Your task to perform on an android device: search for starred emails in the gmail app Image 0: 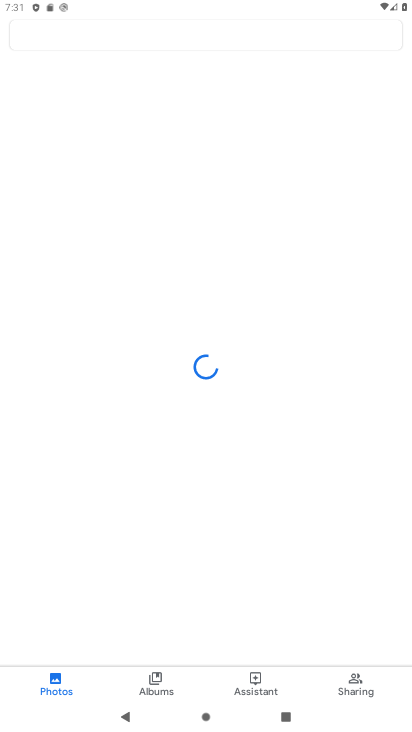
Step 0: press home button
Your task to perform on an android device: search for starred emails in the gmail app Image 1: 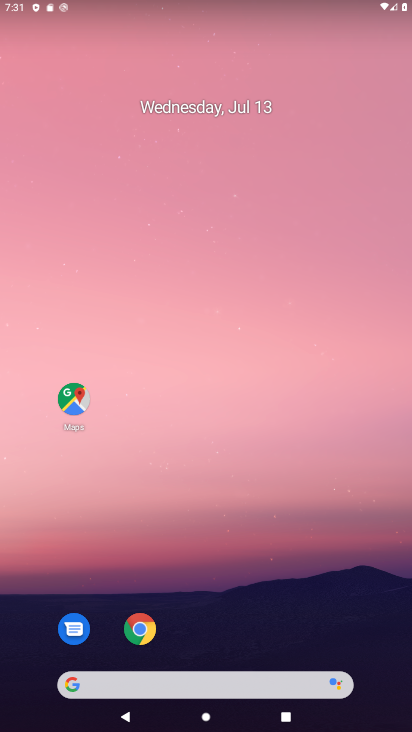
Step 1: drag from (323, 584) to (254, 1)
Your task to perform on an android device: search for starred emails in the gmail app Image 2: 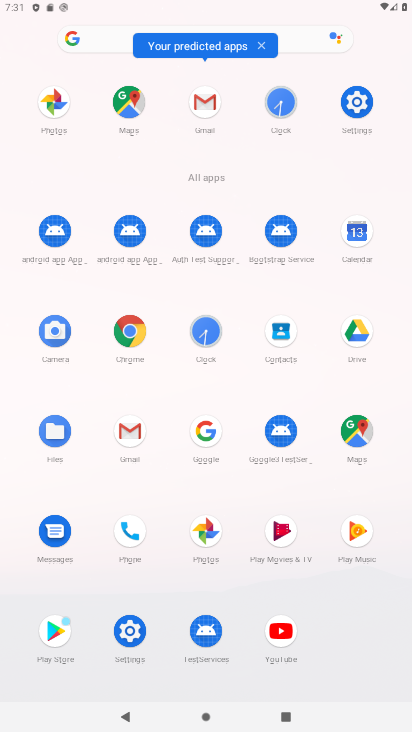
Step 2: click (207, 117)
Your task to perform on an android device: search for starred emails in the gmail app Image 3: 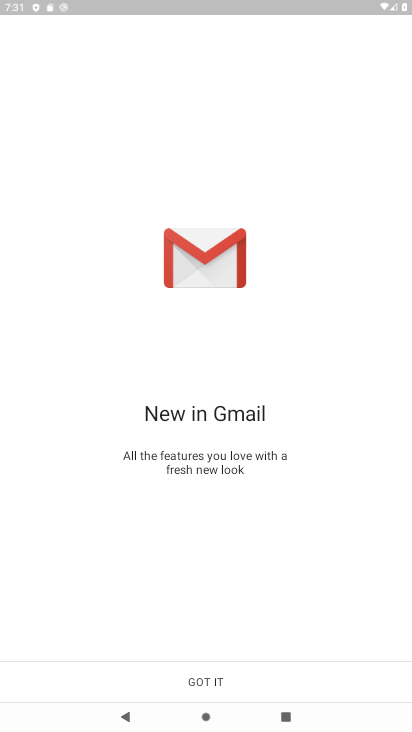
Step 3: click (206, 674)
Your task to perform on an android device: search for starred emails in the gmail app Image 4: 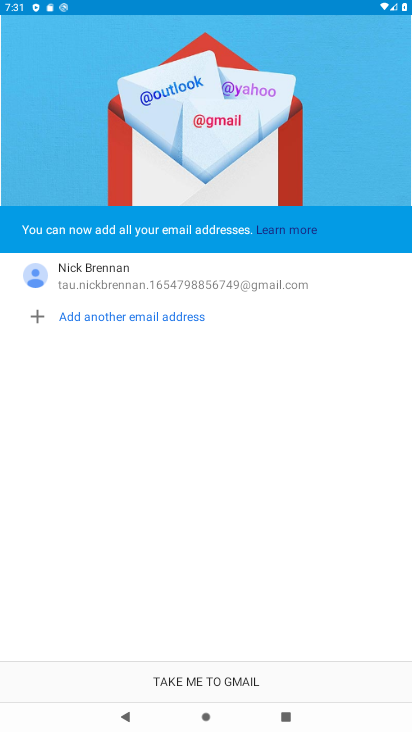
Step 4: click (206, 674)
Your task to perform on an android device: search for starred emails in the gmail app Image 5: 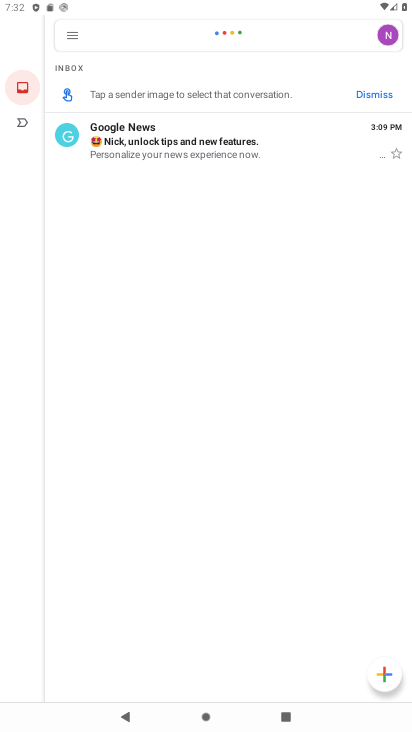
Step 5: click (79, 34)
Your task to perform on an android device: search for starred emails in the gmail app Image 6: 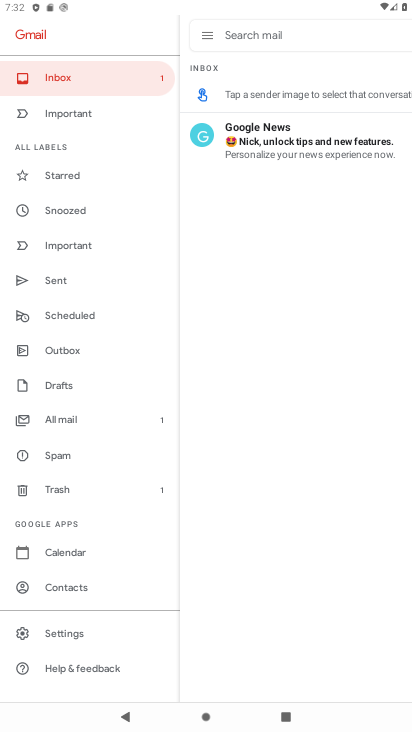
Step 6: click (90, 182)
Your task to perform on an android device: search for starred emails in the gmail app Image 7: 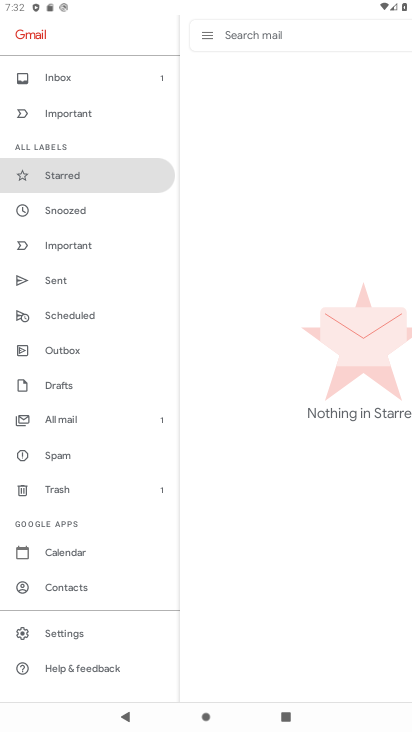
Step 7: task complete